Your task to perform on an android device: turn off notifications in google photos Image 0: 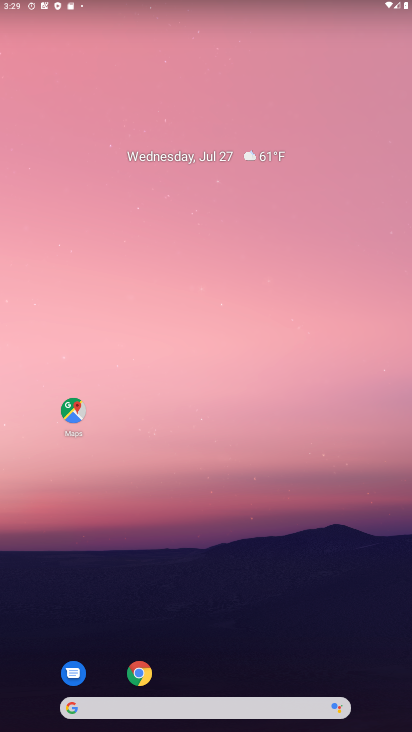
Step 0: drag from (99, 453) to (212, 42)
Your task to perform on an android device: turn off notifications in google photos Image 1: 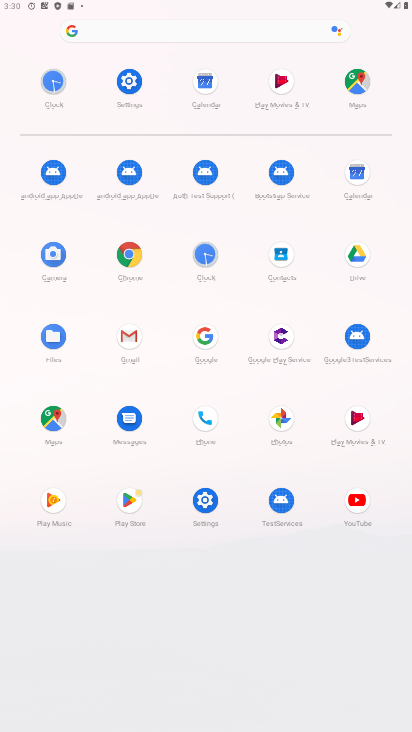
Step 1: click (275, 416)
Your task to perform on an android device: turn off notifications in google photos Image 2: 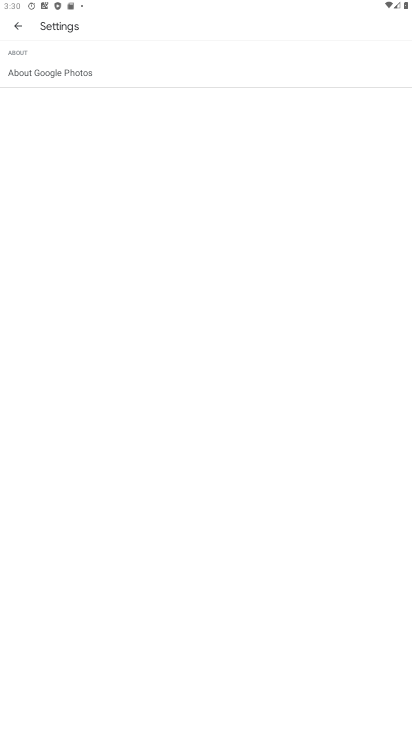
Step 2: click (14, 33)
Your task to perform on an android device: turn off notifications in google photos Image 3: 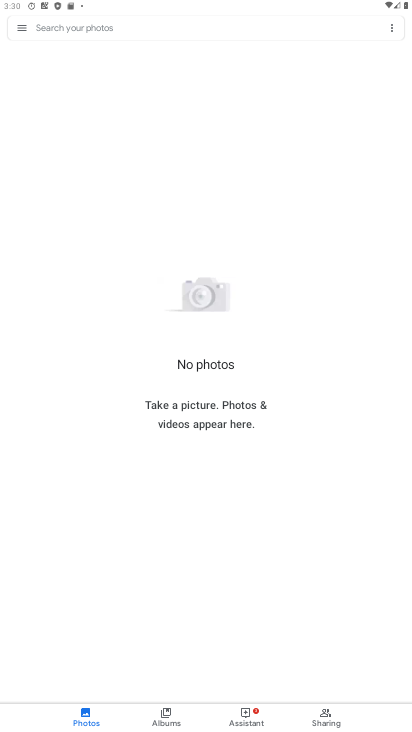
Step 3: click (72, 715)
Your task to perform on an android device: turn off notifications in google photos Image 4: 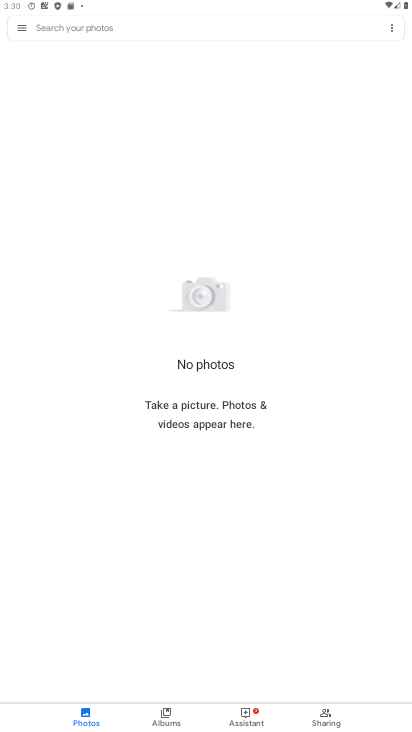
Step 4: task complete